Your task to perform on an android device: turn off notifications in google photos Image 0: 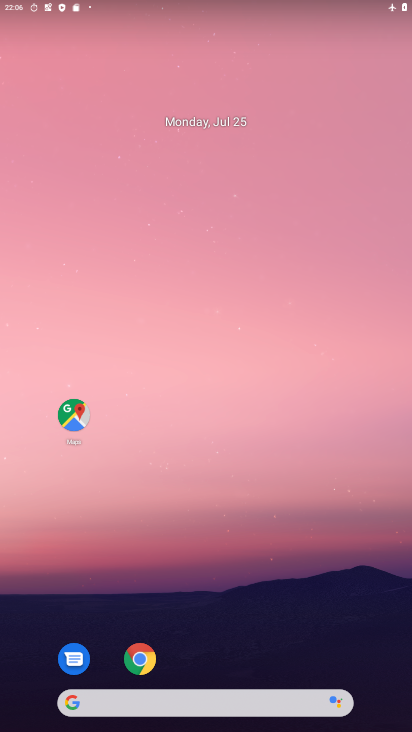
Step 0: drag from (218, 648) to (218, 273)
Your task to perform on an android device: turn off notifications in google photos Image 1: 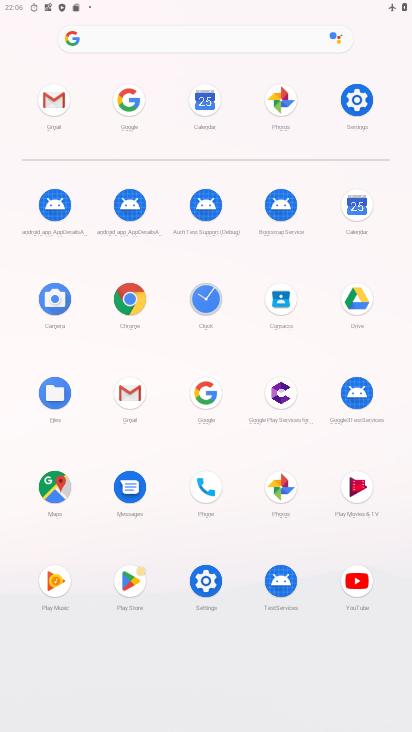
Step 1: click (285, 114)
Your task to perform on an android device: turn off notifications in google photos Image 2: 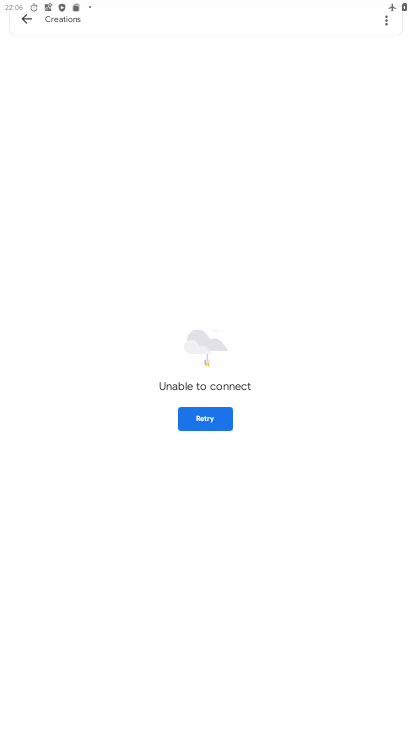
Step 2: click (23, 21)
Your task to perform on an android device: turn off notifications in google photos Image 3: 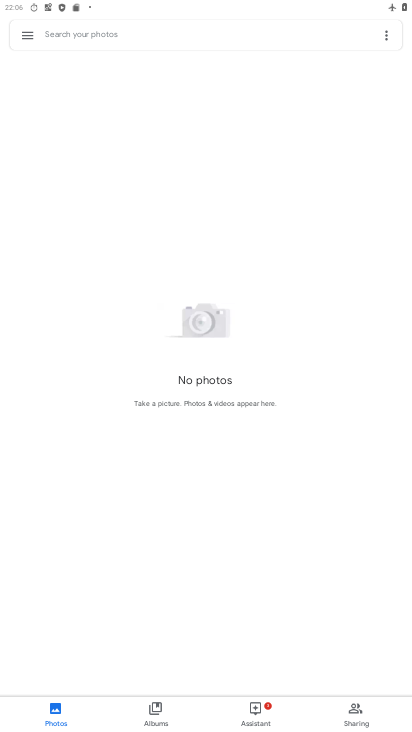
Step 3: click (30, 35)
Your task to perform on an android device: turn off notifications in google photos Image 4: 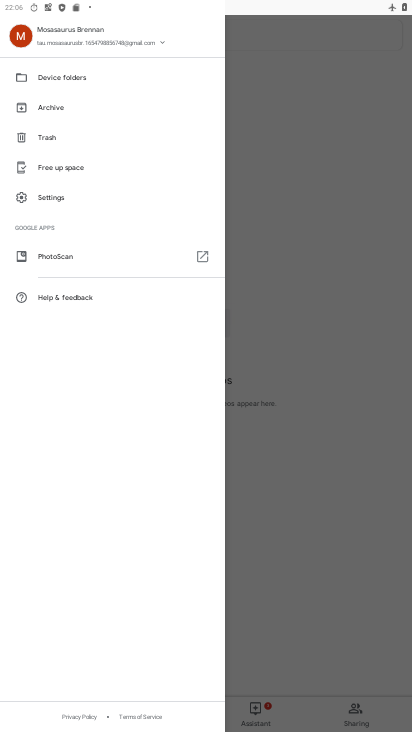
Step 4: click (62, 204)
Your task to perform on an android device: turn off notifications in google photos Image 5: 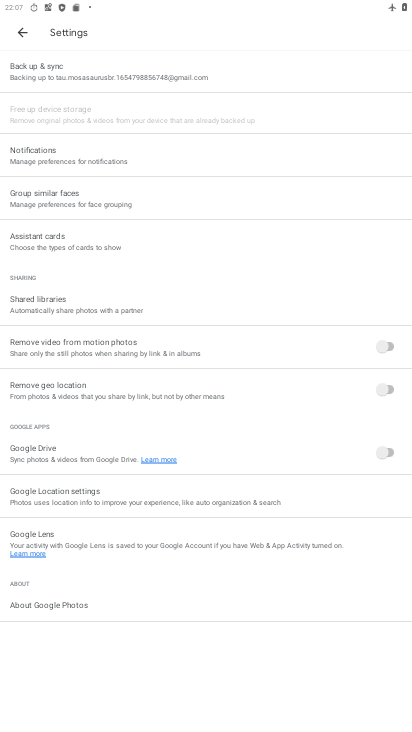
Step 5: click (62, 165)
Your task to perform on an android device: turn off notifications in google photos Image 6: 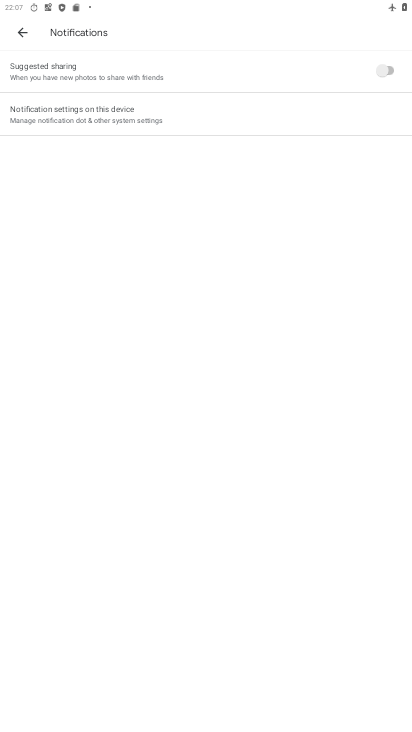
Step 6: click (140, 129)
Your task to perform on an android device: turn off notifications in google photos Image 7: 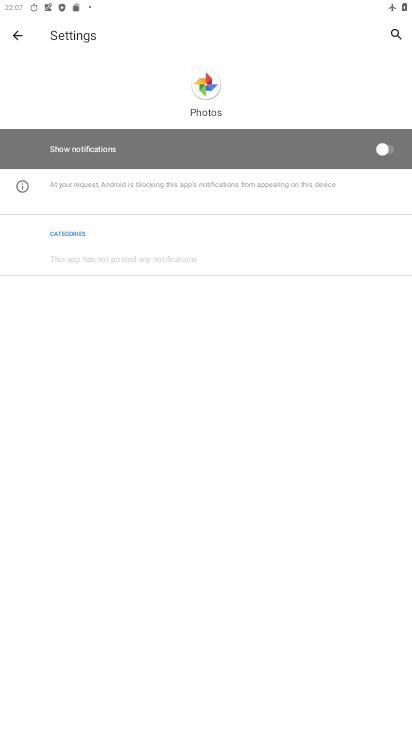
Step 7: task complete